Your task to perform on an android device: turn pop-ups on in chrome Image 0: 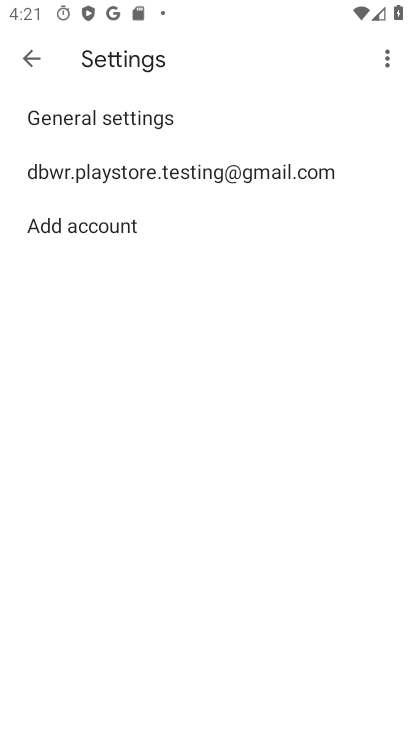
Step 0: press home button
Your task to perform on an android device: turn pop-ups on in chrome Image 1: 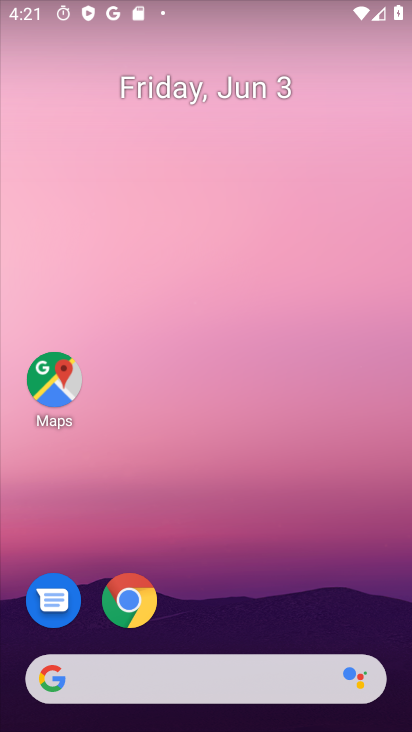
Step 1: click (133, 578)
Your task to perform on an android device: turn pop-ups on in chrome Image 2: 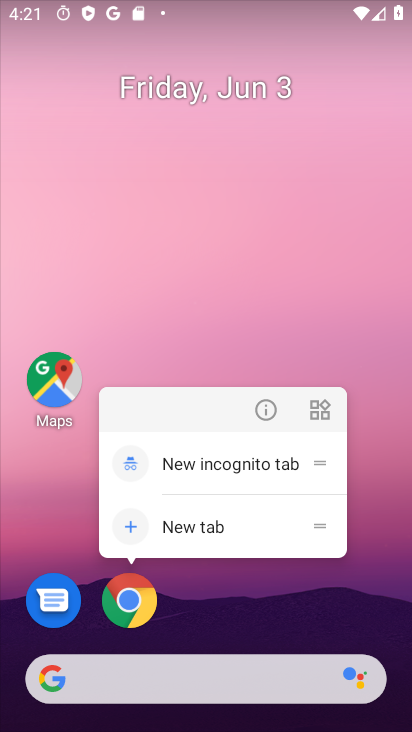
Step 2: click (131, 599)
Your task to perform on an android device: turn pop-ups on in chrome Image 3: 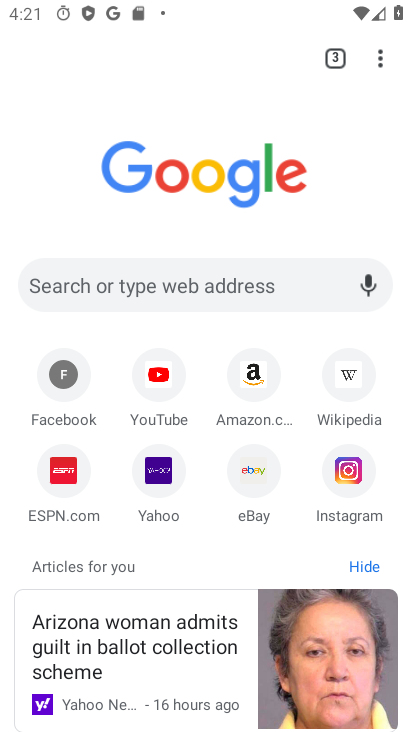
Step 3: click (380, 59)
Your task to perform on an android device: turn pop-ups on in chrome Image 4: 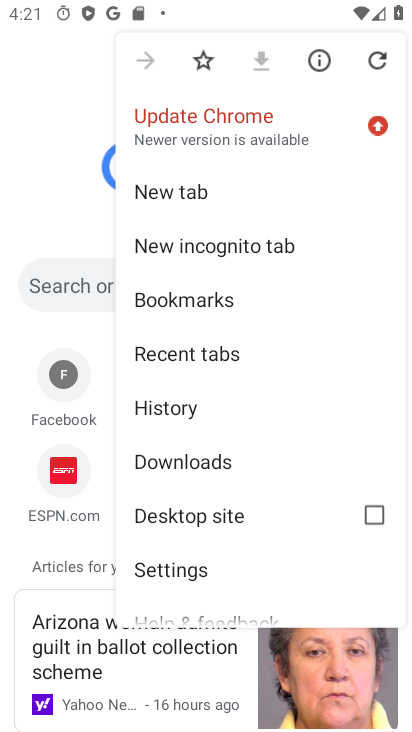
Step 4: drag from (252, 577) to (268, 241)
Your task to perform on an android device: turn pop-ups on in chrome Image 5: 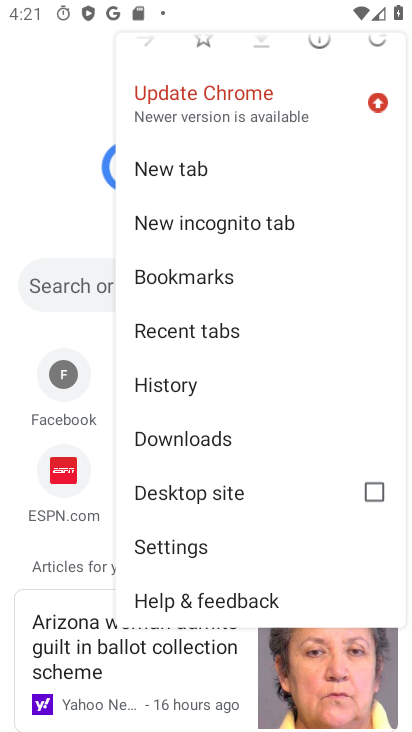
Step 5: drag from (245, 545) to (254, 310)
Your task to perform on an android device: turn pop-ups on in chrome Image 6: 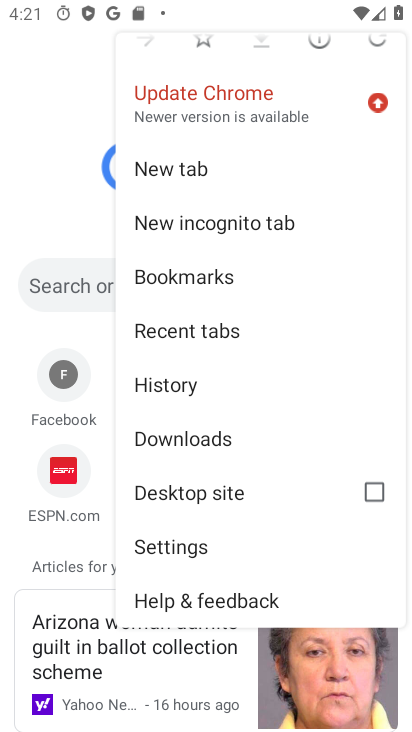
Step 6: click (152, 542)
Your task to perform on an android device: turn pop-ups on in chrome Image 7: 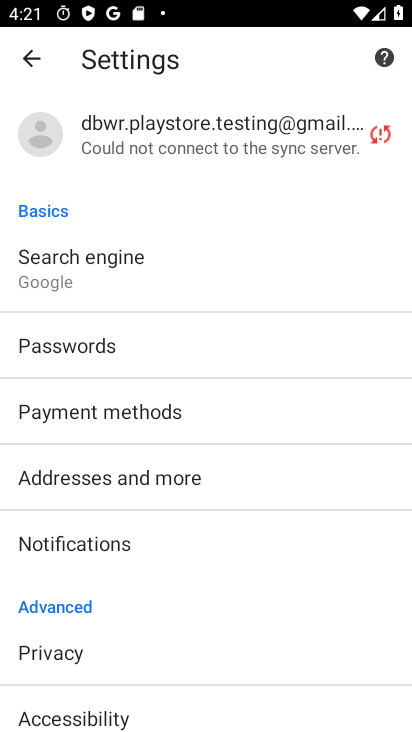
Step 7: drag from (201, 616) to (171, 333)
Your task to perform on an android device: turn pop-ups on in chrome Image 8: 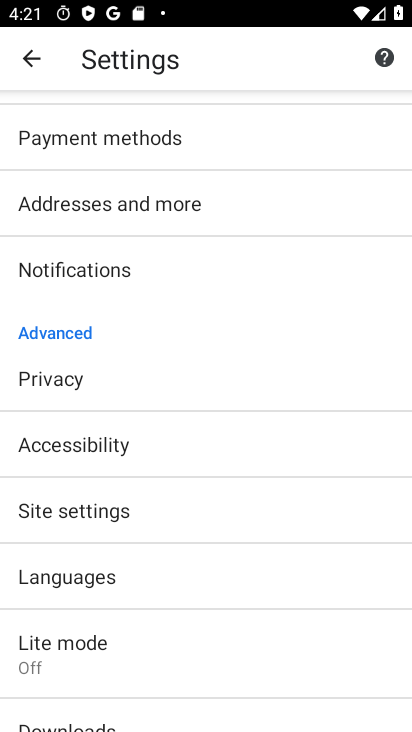
Step 8: click (50, 519)
Your task to perform on an android device: turn pop-ups on in chrome Image 9: 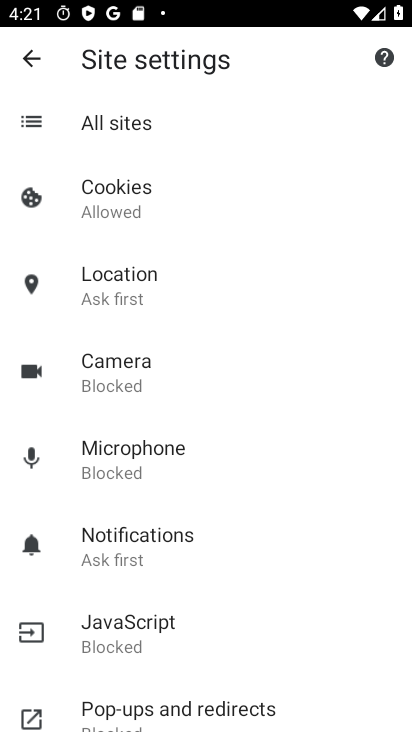
Step 9: click (197, 711)
Your task to perform on an android device: turn pop-ups on in chrome Image 10: 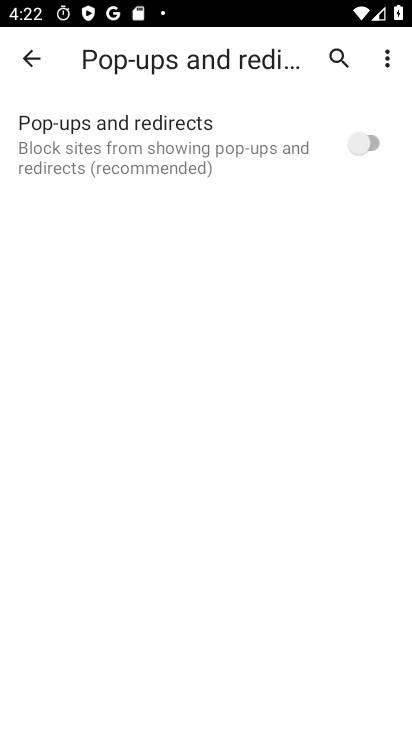
Step 10: click (372, 141)
Your task to perform on an android device: turn pop-ups on in chrome Image 11: 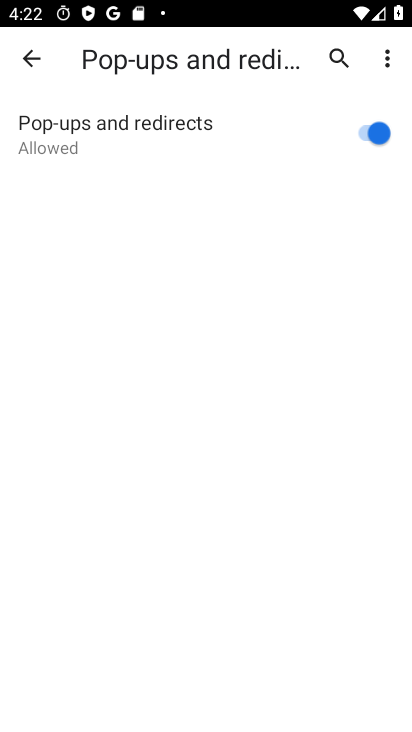
Step 11: task complete